Your task to perform on an android device: delete the emails in spam in the gmail app Image 0: 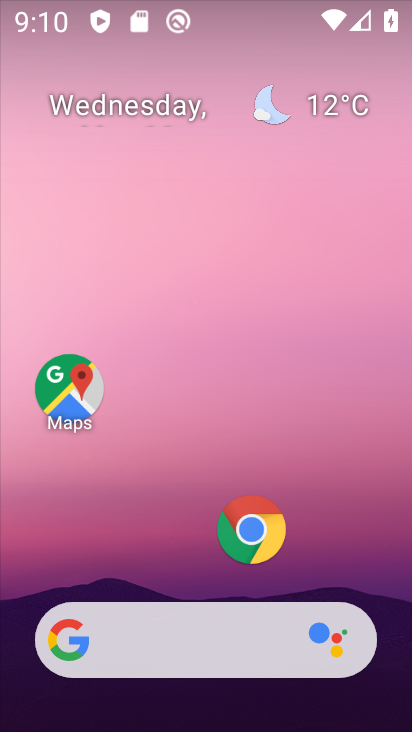
Step 0: drag from (175, 590) to (182, 175)
Your task to perform on an android device: delete the emails in spam in the gmail app Image 1: 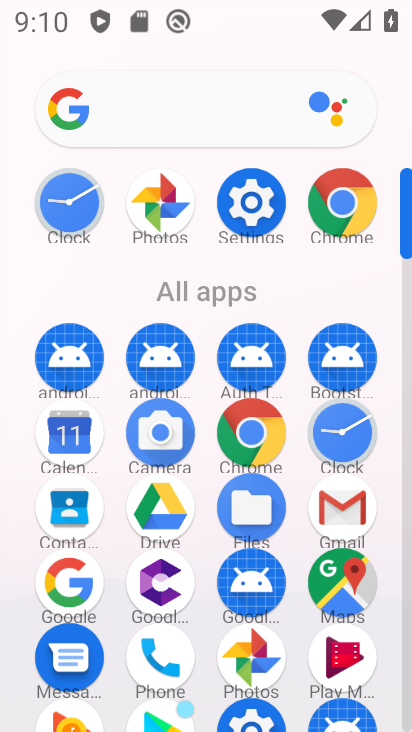
Step 1: click (339, 516)
Your task to perform on an android device: delete the emails in spam in the gmail app Image 2: 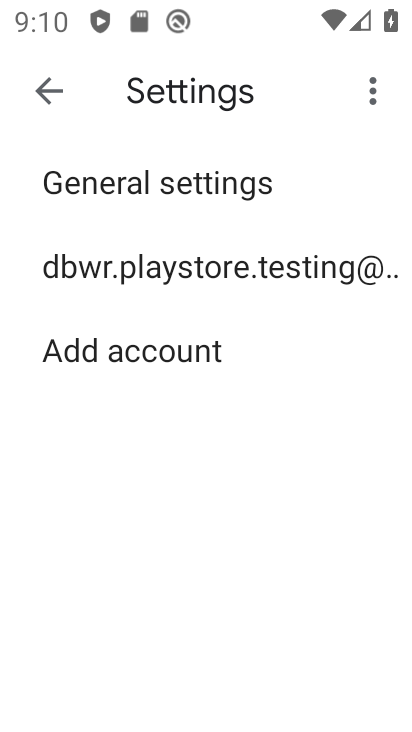
Step 2: click (49, 84)
Your task to perform on an android device: delete the emails in spam in the gmail app Image 3: 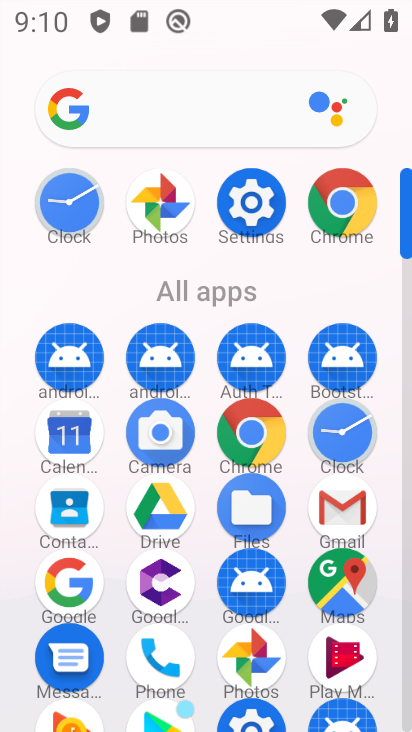
Step 3: click (325, 516)
Your task to perform on an android device: delete the emails in spam in the gmail app Image 4: 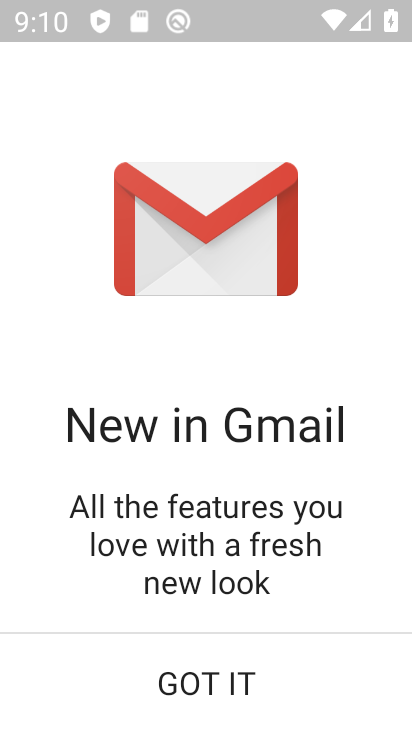
Step 4: click (202, 682)
Your task to perform on an android device: delete the emails in spam in the gmail app Image 5: 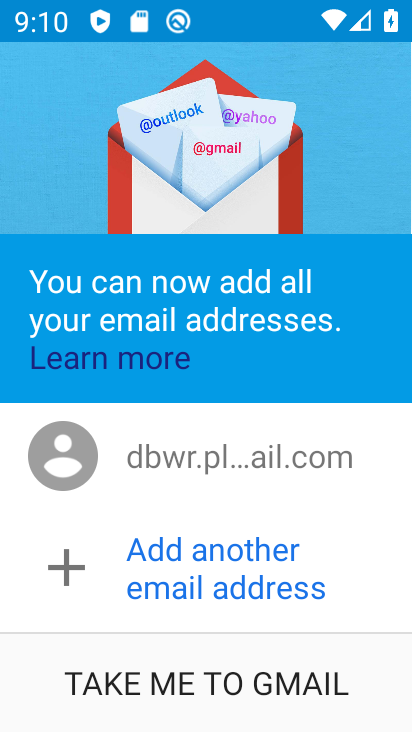
Step 5: click (211, 679)
Your task to perform on an android device: delete the emails in spam in the gmail app Image 6: 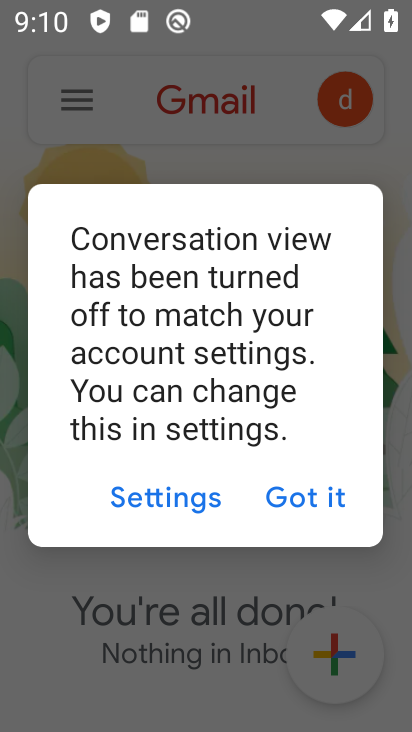
Step 6: click (290, 494)
Your task to perform on an android device: delete the emails in spam in the gmail app Image 7: 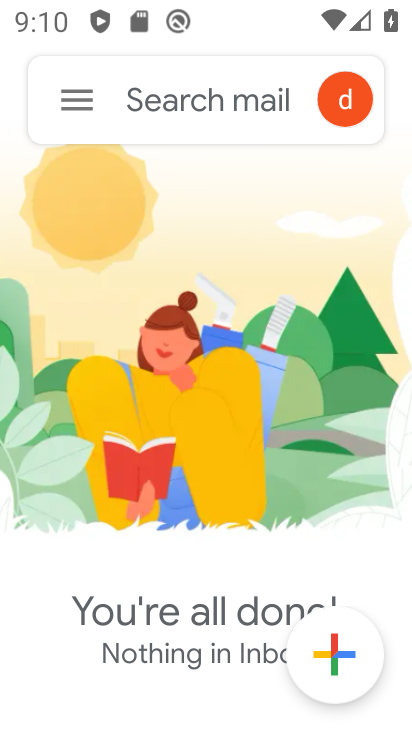
Step 7: click (75, 98)
Your task to perform on an android device: delete the emails in spam in the gmail app Image 8: 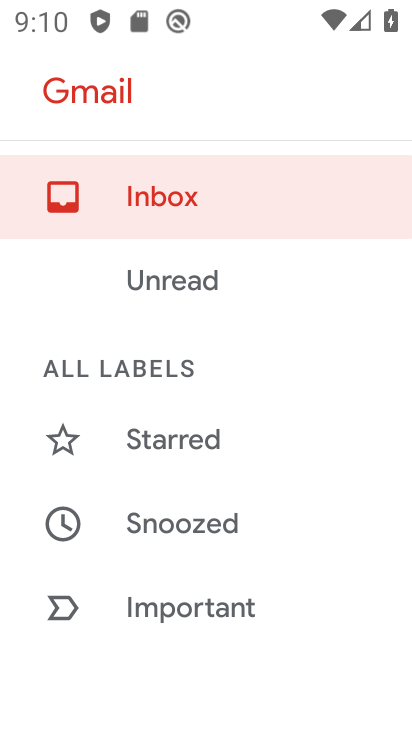
Step 8: drag from (228, 643) to (219, 257)
Your task to perform on an android device: delete the emails in spam in the gmail app Image 9: 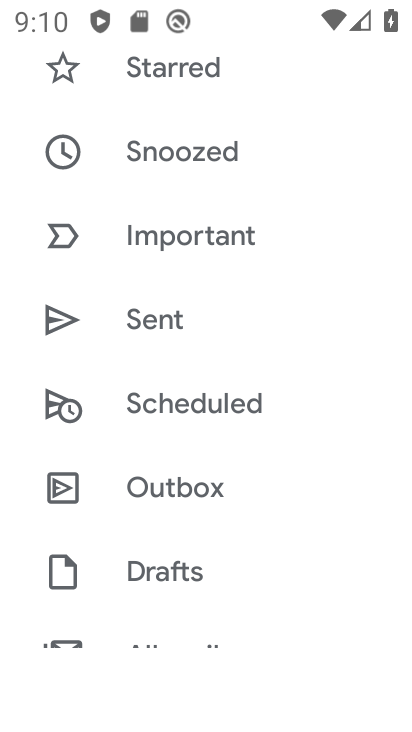
Step 9: drag from (202, 602) to (201, 279)
Your task to perform on an android device: delete the emails in spam in the gmail app Image 10: 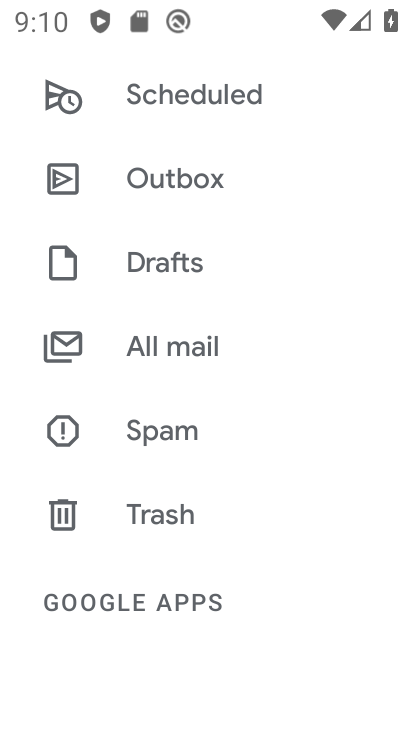
Step 10: click (175, 441)
Your task to perform on an android device: delete the emails in spam in the gmail app Image 11: 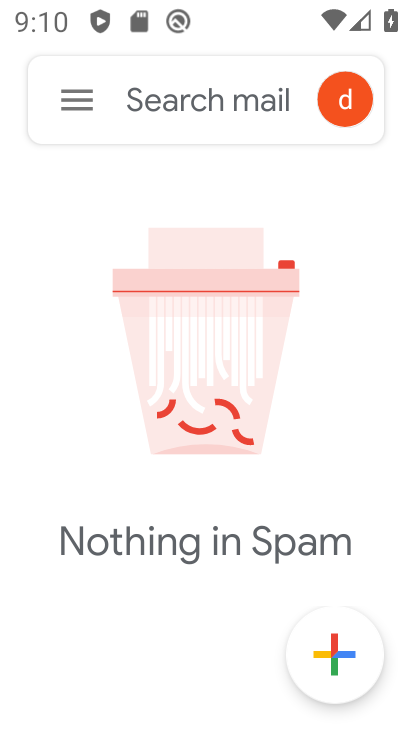
Step 11: task complete